Your task to perform on an android device: Open the Play Movies app and select the watchlist tab. Image 0: 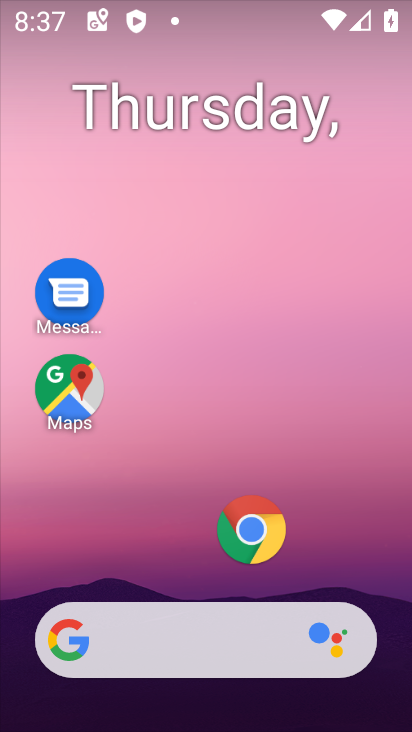
Step 0: drag from (186, 577) to (223, 100)
Your task to perform on an android device: Open the Play Movies app and select the watchlist tab. Image 1: 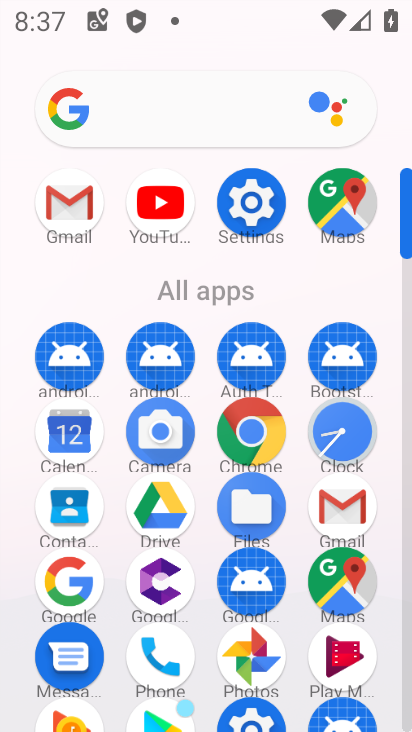
Step 1: click (349, 660)
Your task to perform on an android device: Open the Play Movies app and select the watchlist tab. Image 2: 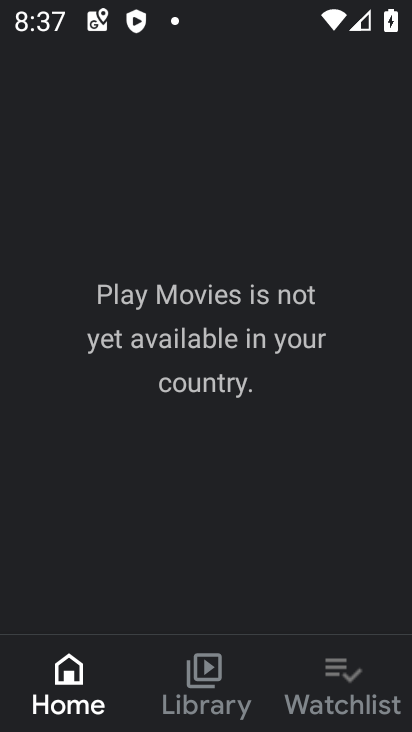
Step 2: click (357, 665)
Your task to perform on an android device: Open the Play Movies app and select the watchlist tab. Image 3: 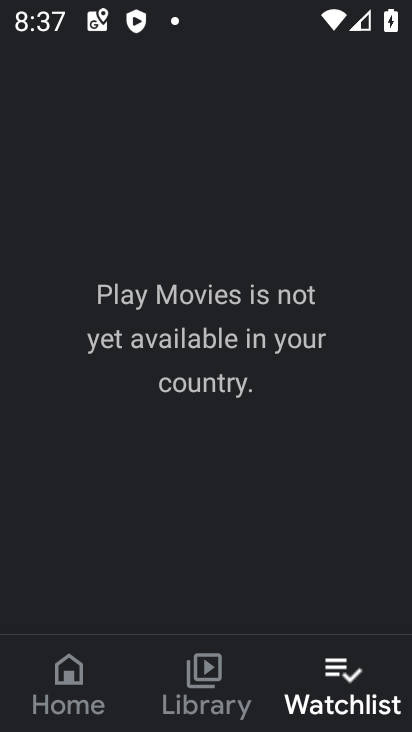
Step 3: task complete